Your task to perform on an android device: turn off airplane mode Image 0: 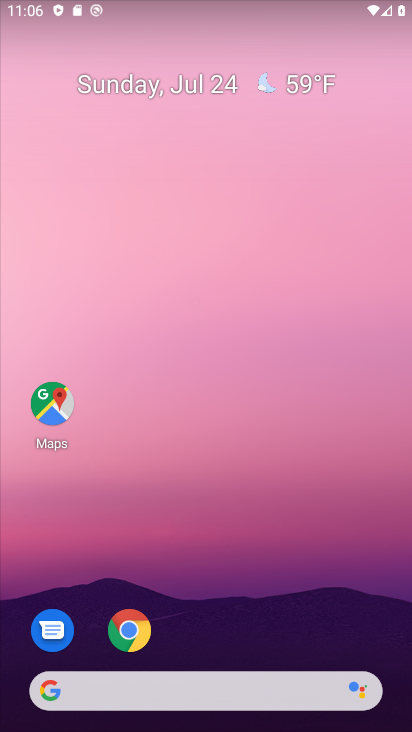
Step 0: press home button
Your task to perform on an android device: turn off airplane mode Image 1: 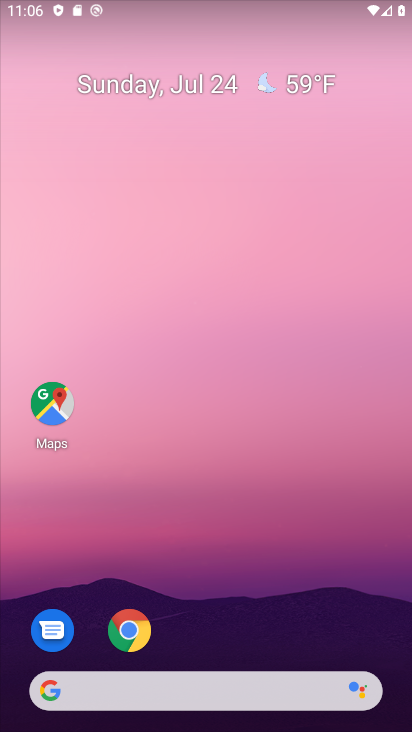
Step 1: drag from (208, 639) to (270, 166)
Your task to perform on an android device: turn off airplane mode Image 2: 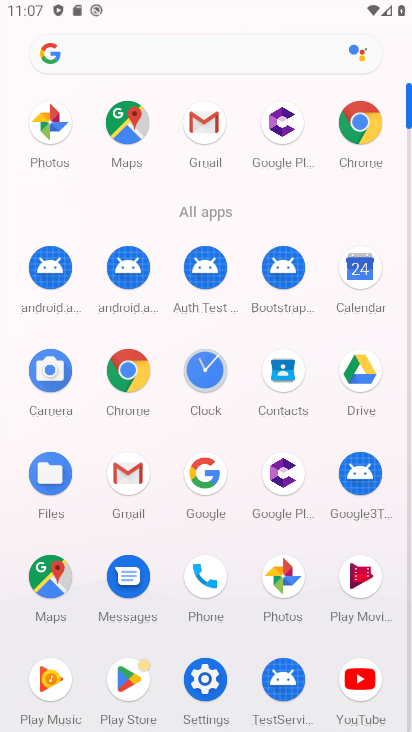
Step 2: click (203, 674)
Your task to perform on an android device: turn off airplane mode Image 3: 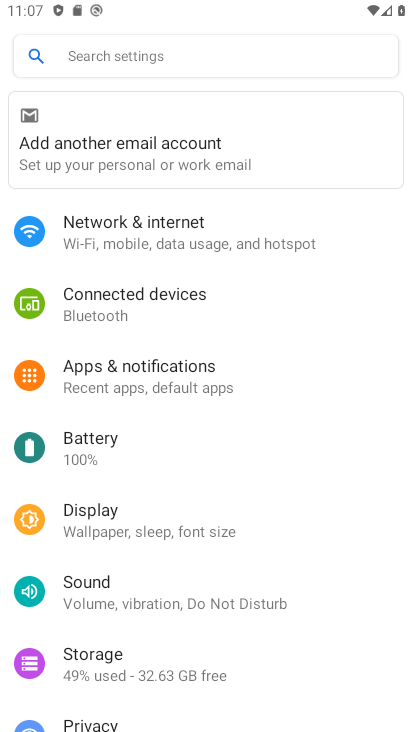
Step 3: task complete